Your task to perform on an android device: open chrome privacy settings Image 0: 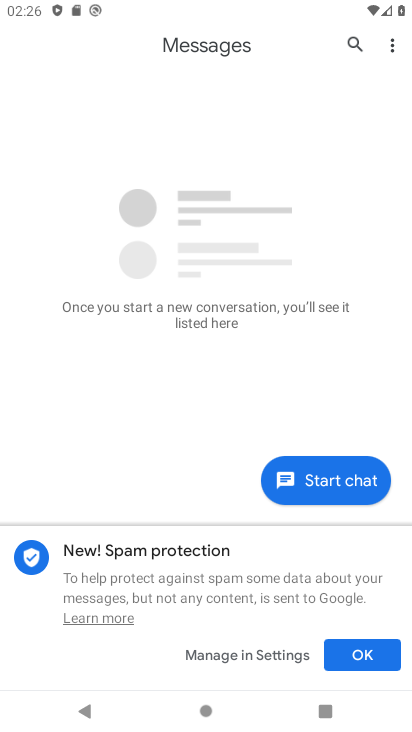
Step 0: press home button
Your task to perform on an android device: open chrome privacy settings Image 1: 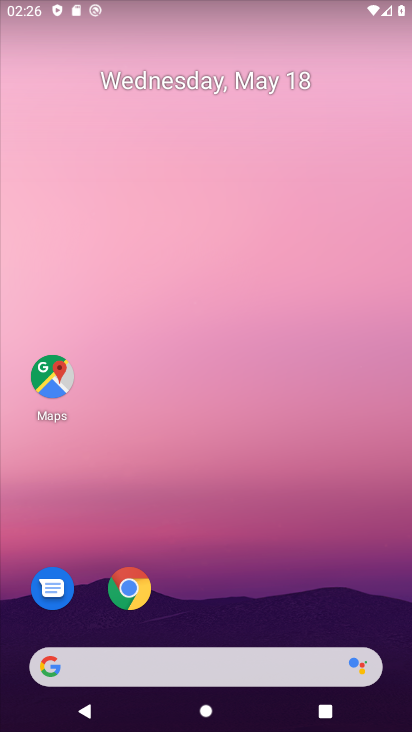
Step 1: click (119, 584)
Your task to perform on an android device: open chrome privacy settings Image 2: 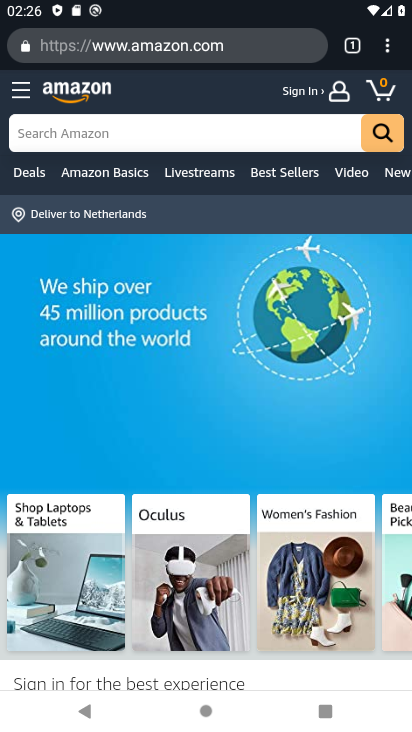
Step 2: click (383, 46)
Your task to perform on an android device: open chrome privacy settings Image 3: 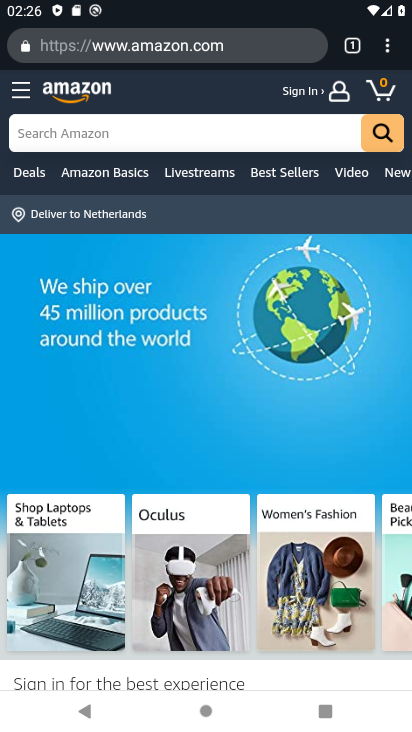
Step 3: click (392, 46)
Your task to perform on an android device: open chrome privacy settings Image 4: 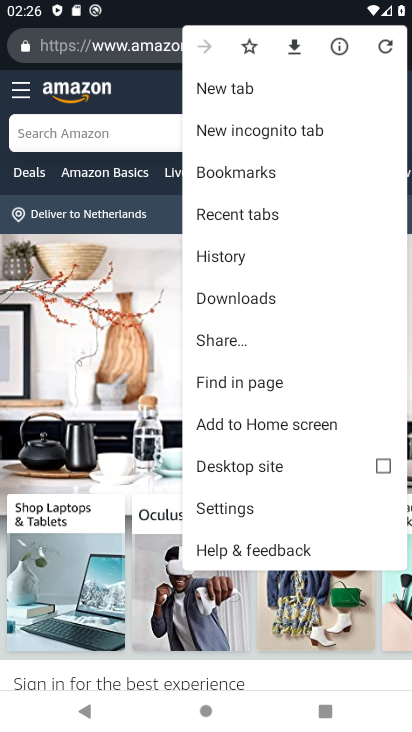
Step 4: click (219, 508)
Your task to perform on an android device: open chrome privacy settings Image 5: 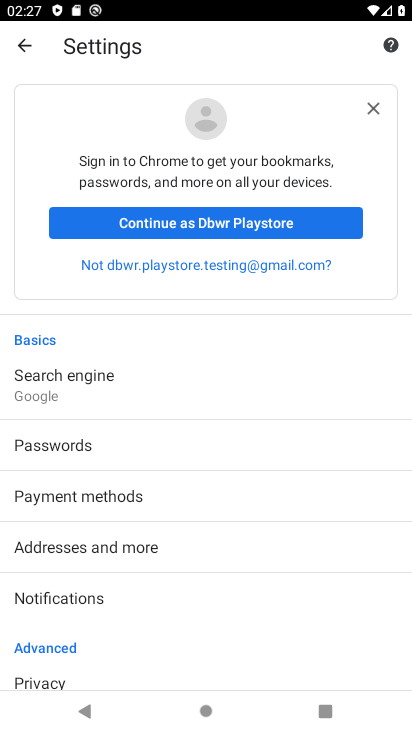
Step 5: click (24, 672)
Your task to perform on an android device: open chrome privacy settings Image 6: 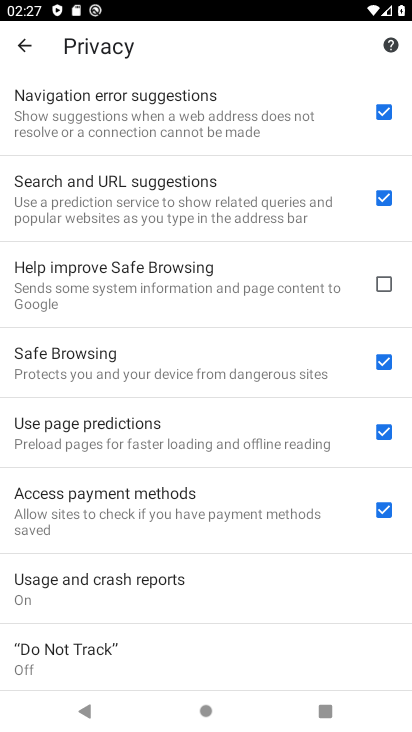
Step 6: task complete